Your task to perform on an android device: toggle data saver in the chrome app Image 0: 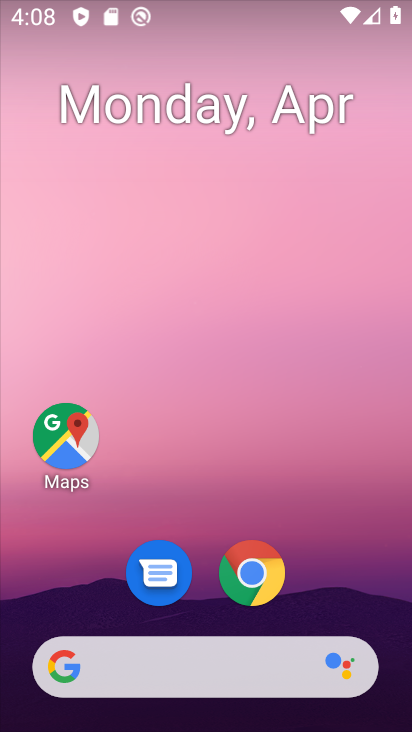
Step 0: click (260, 578)
Your task to perform on an android device: toggle data saver in the chrome app Image 1: 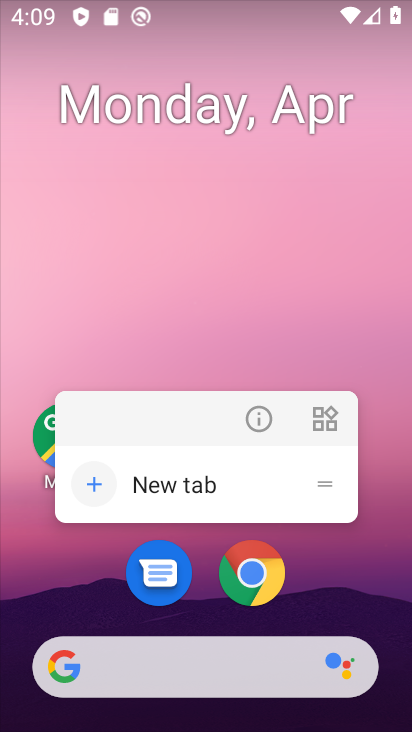
Step 1: click (260, 578)
Your task to perform on an android device: toggle data saver in the chrome app Image 2: 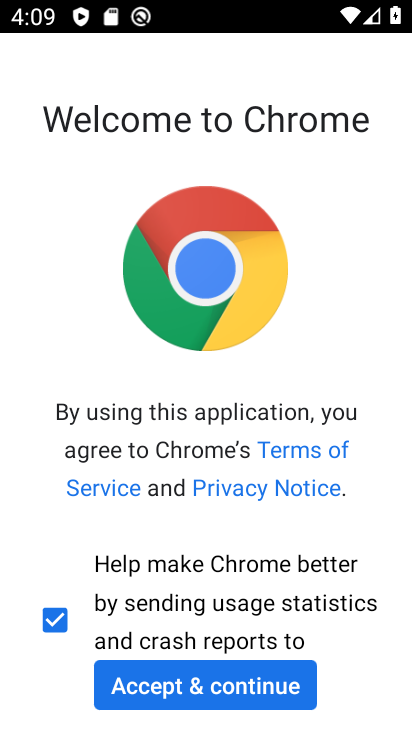
Step 2: click (241, 683)
Your task to perform on an android device: toggle data saver in the chrome app Image 3: 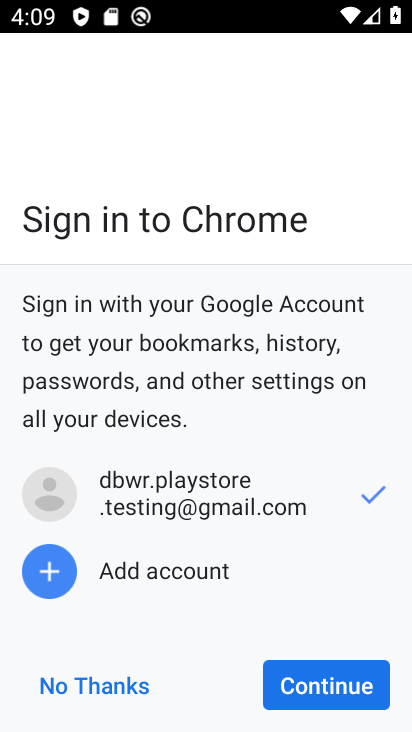
Step 3: click (305, 678)
Your task to perform on an android device: toggle data saver in the chrome app Image 4: 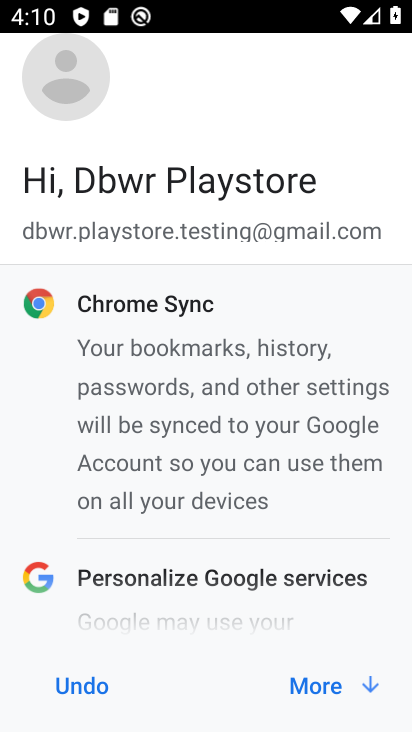
Step 4: click (355, 679)
Your task to perform on an android device: toggle data saver in the chrome app Image 5: 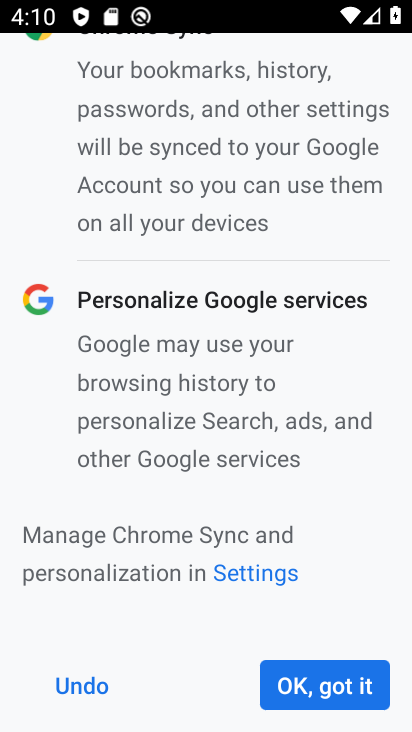
Step 5: click (355, 679)
Your task to perform on an android device: toggle data saver in the chrome app Image 6: 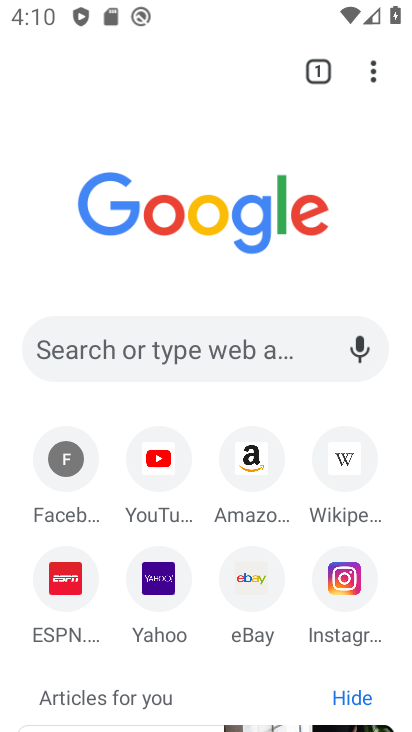
Step 6: click (377, 76)
Your task to perform on an android device: toggle data saver in the chrome app Image 7: 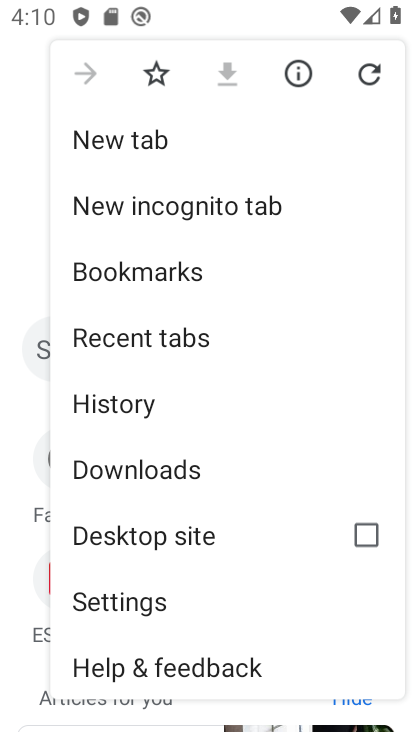
Step 7: click (143, 598)
Your task to perform on an android device: toggle data saver in the chrome app Image 8: 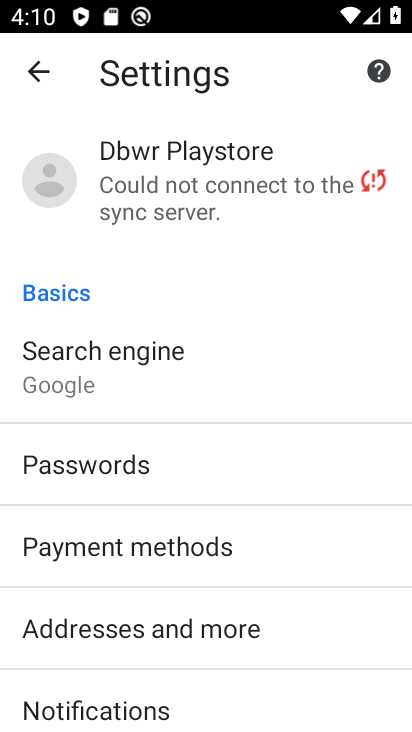
Step 8: drag from (171, 590) to (239, 245)
Your task to perform on an android device: toggle data saver in the chrome app Image 9: 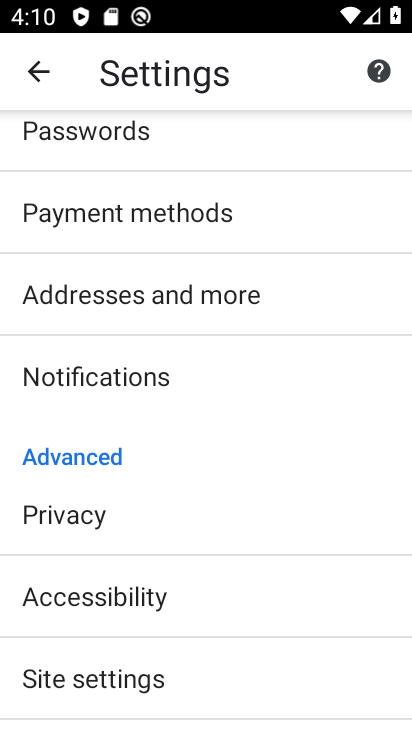
Step 9: drag from (169, 661) to (171, 376)
Your task to perform on an android device: toggle data saver in the chrome app Image 10: 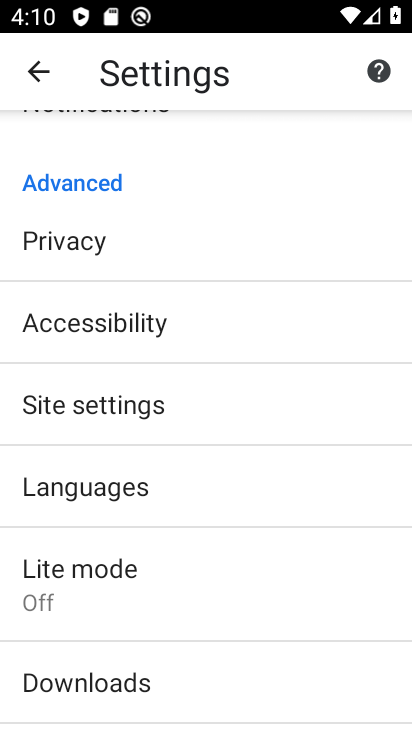
Step 10: click (226, 606)
Your task to perform on an android device: toggle data saver in the chrome app Image 11: 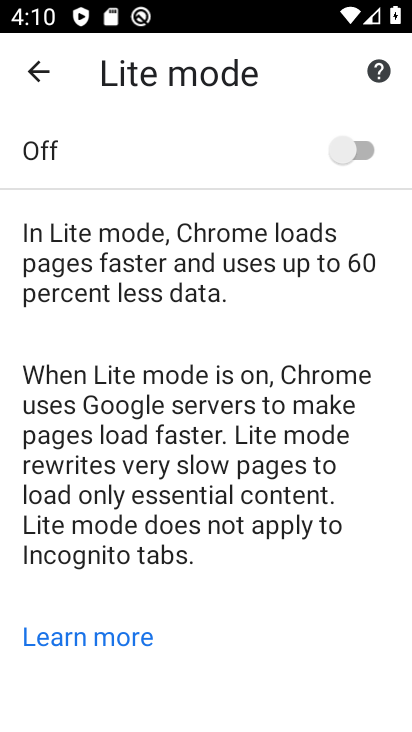
Step 11: click (345, 146)
Your task to perform on an android device: toggle data saver in the chrome app Image 12: 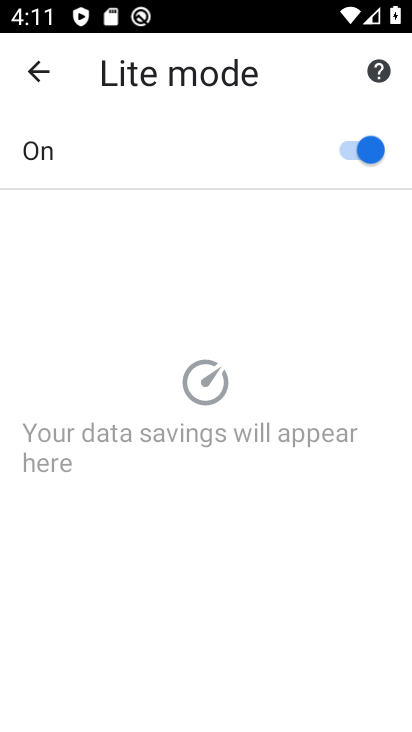
Step 12: task complete